Your task to perform on an android device: Open the calendar and show me this week's events? Image 0: 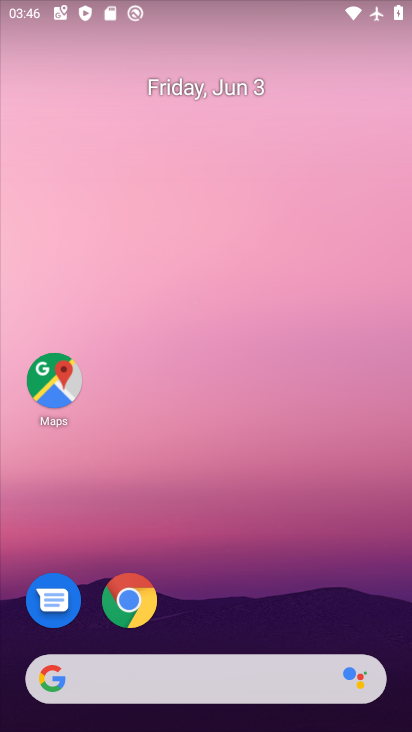
Step 0: drag from (229, 624) to (347, 187)
Your task to perform on an android device: Open the calendar and show me this week's events? Image 1: 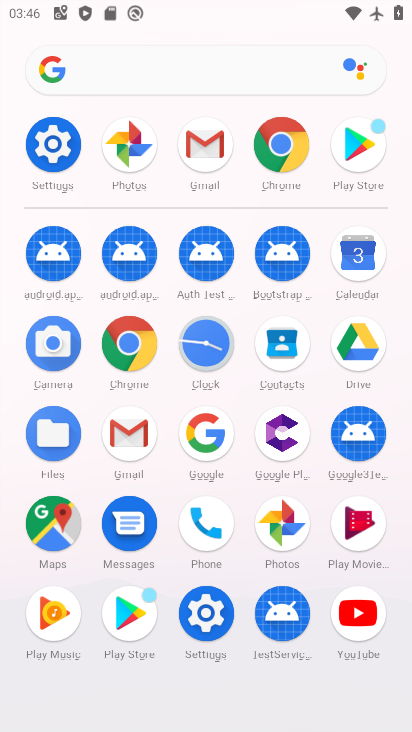
Step 1: click (366, 261)
Your task to perform on an android device: Open the calendar and show me this week's events? Image 2: 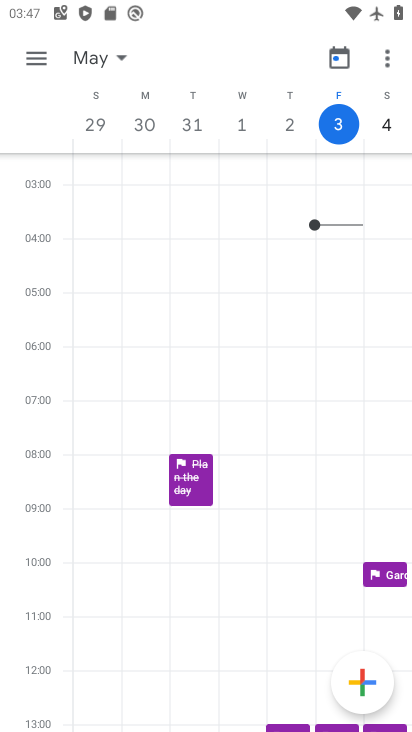
Step 2: task complete